Your task to perform on an android device: Go to notification settings Image 0: 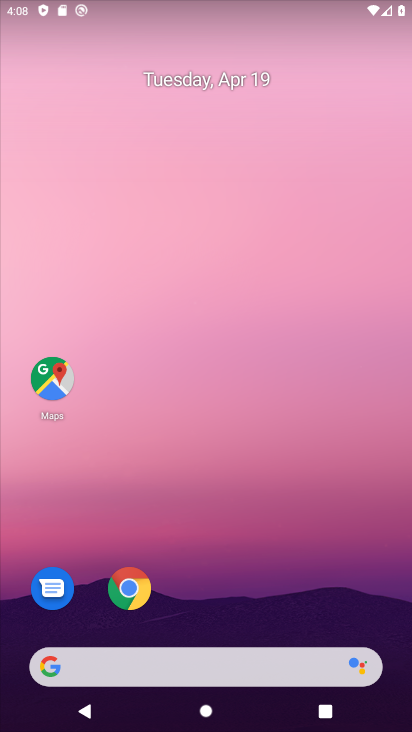
Step 0: drag from (194, 416) to (194, 38)
Your task to perform on an android device: Go to notification settings Image 1: 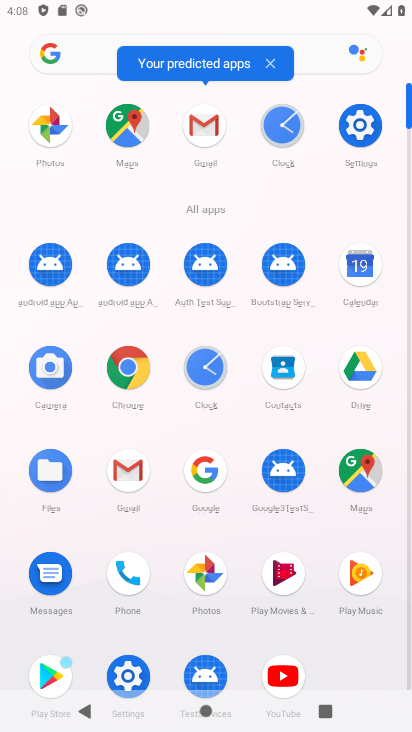
Step 1: click (360, 124)
Your task to perform on an android device: Go to notification settings Image 2: 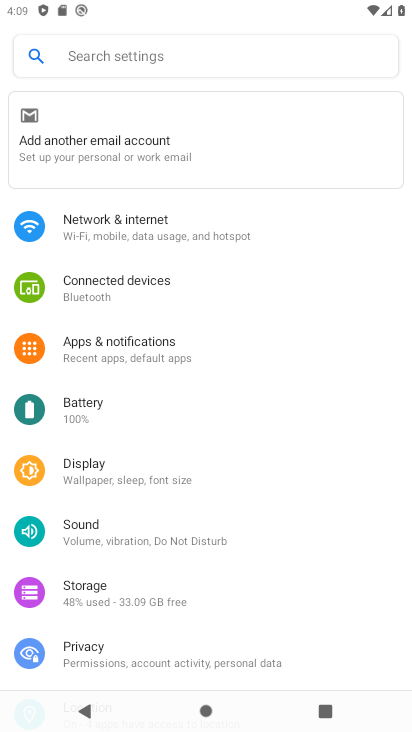
Step 2: click (124, 346)
Your task to perform on an android device: Go to notification settings Image 3: 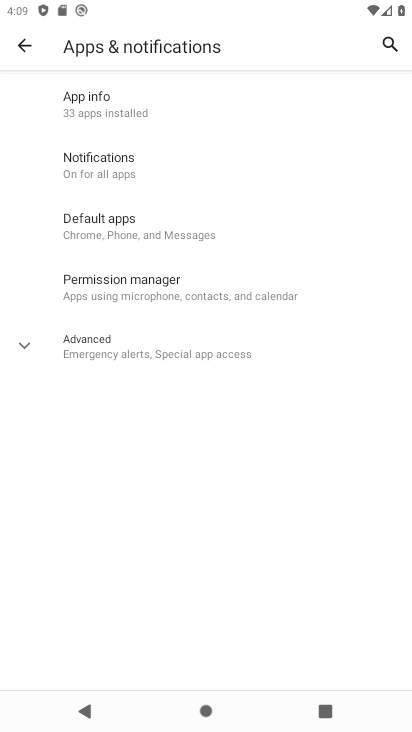
Step 3: click (117, 163)
Your task to perform on an android device: Go to notification settings Image 4: 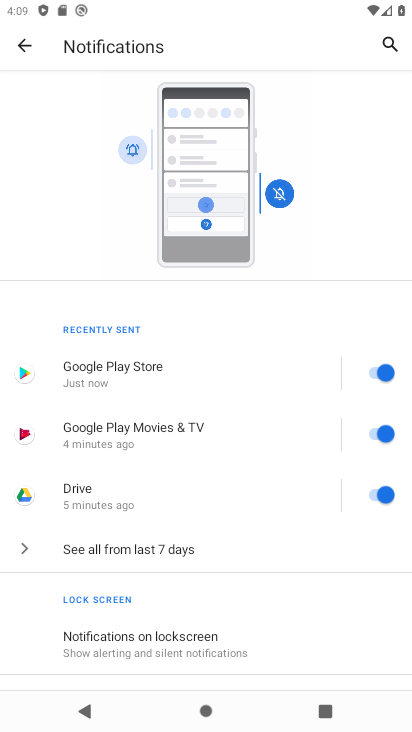
Step 4: task complete